Your task to perform on an android device: Empty the shopping cart on newegg.com. Add "usb-c to usb-a" to the cart on newegg.com Image 0: 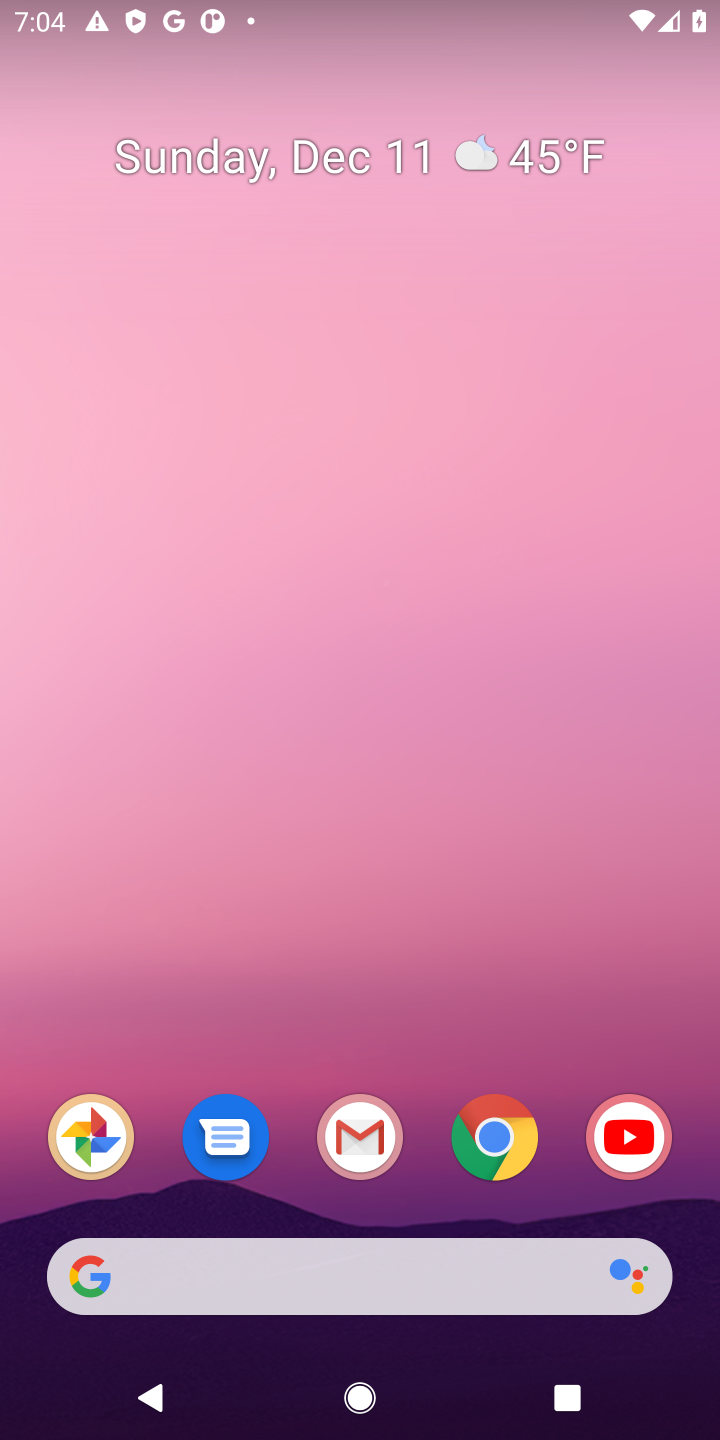
Step 0: click (503, 1128)
Your task to perform on an android device: Empty the shopping cart on newegg.com. Add "usb-c to usb-a" to the cart on newegg.com Image 1: 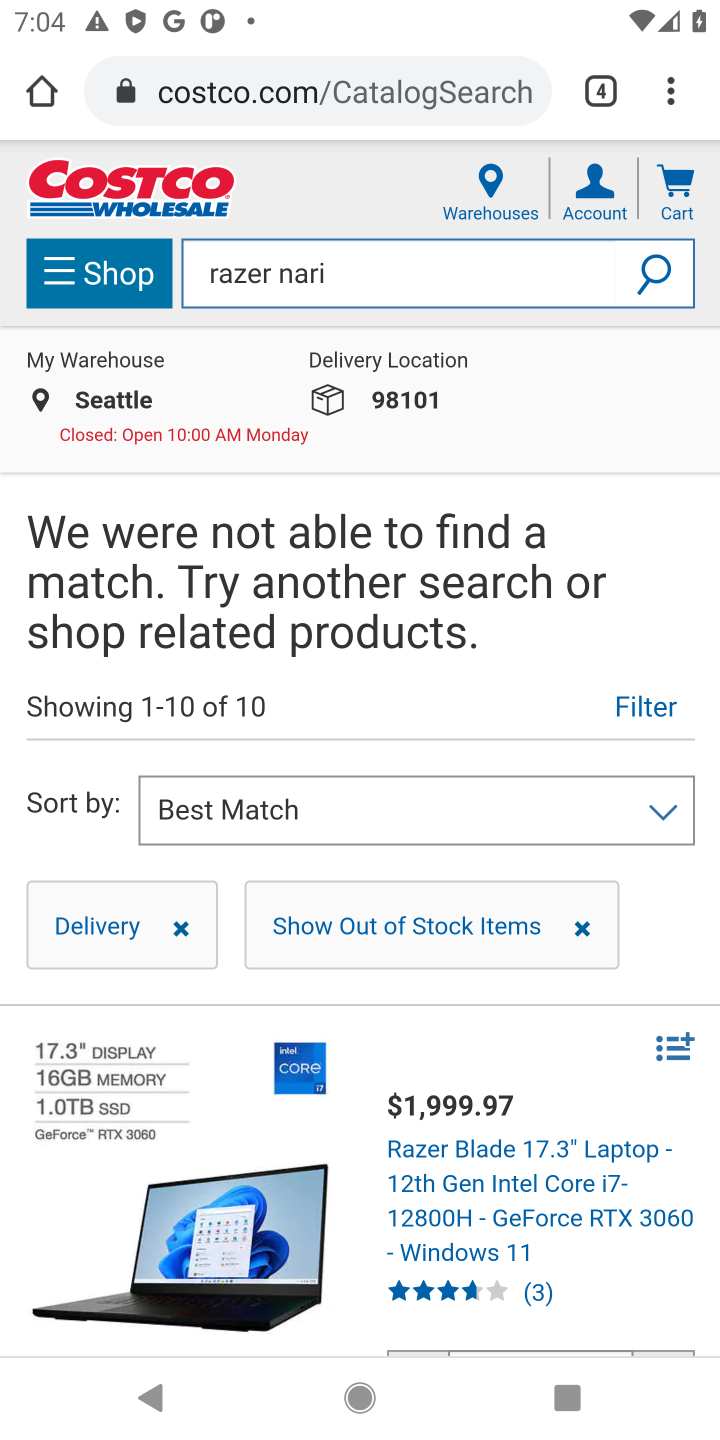
Step 1: click (213, 67)
Your task to perform on an android device: Empty the shopping cart on newegg.com. Add "usb-c to usb-a" to the cart on newegg.com Image 2: 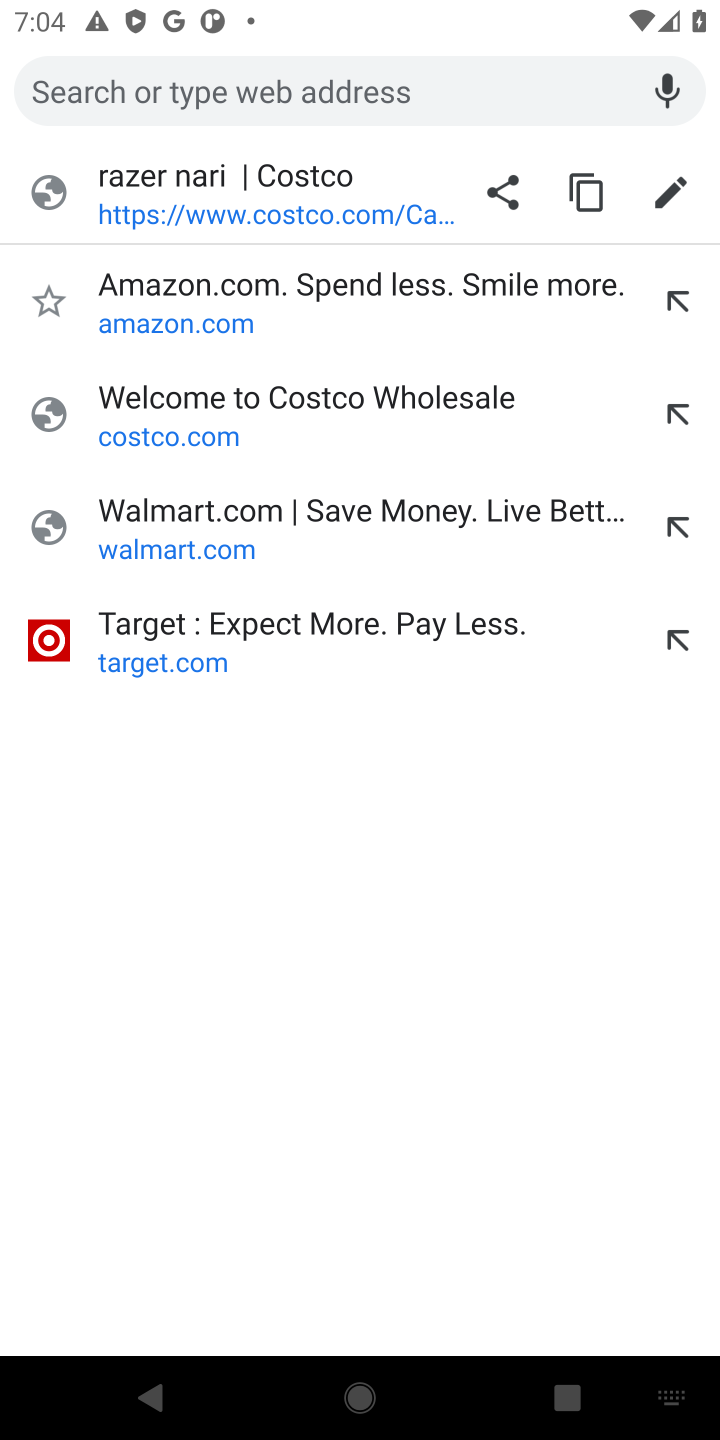
Step 2: type "newegg"
Your task to perform on an android device: Empty the shopping cart on newegg.com. Add "usb-c to usb-a" to the cart on newegg.com Image 3: 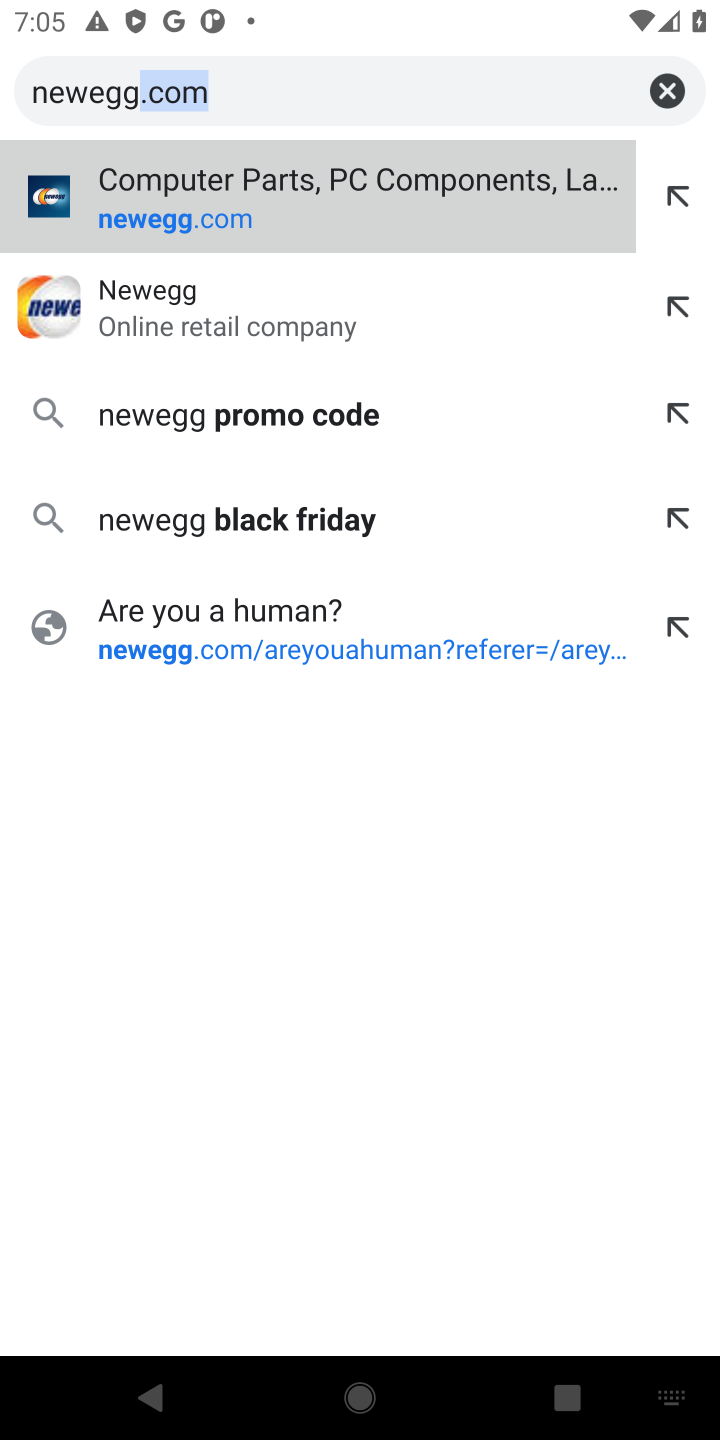
Step 3: click (211, 188)
Your task to perform on an android device: Empty the shopping cart on newegg.com. Add "usb-c to usb-a" to the cart on newegg.com Image 4: 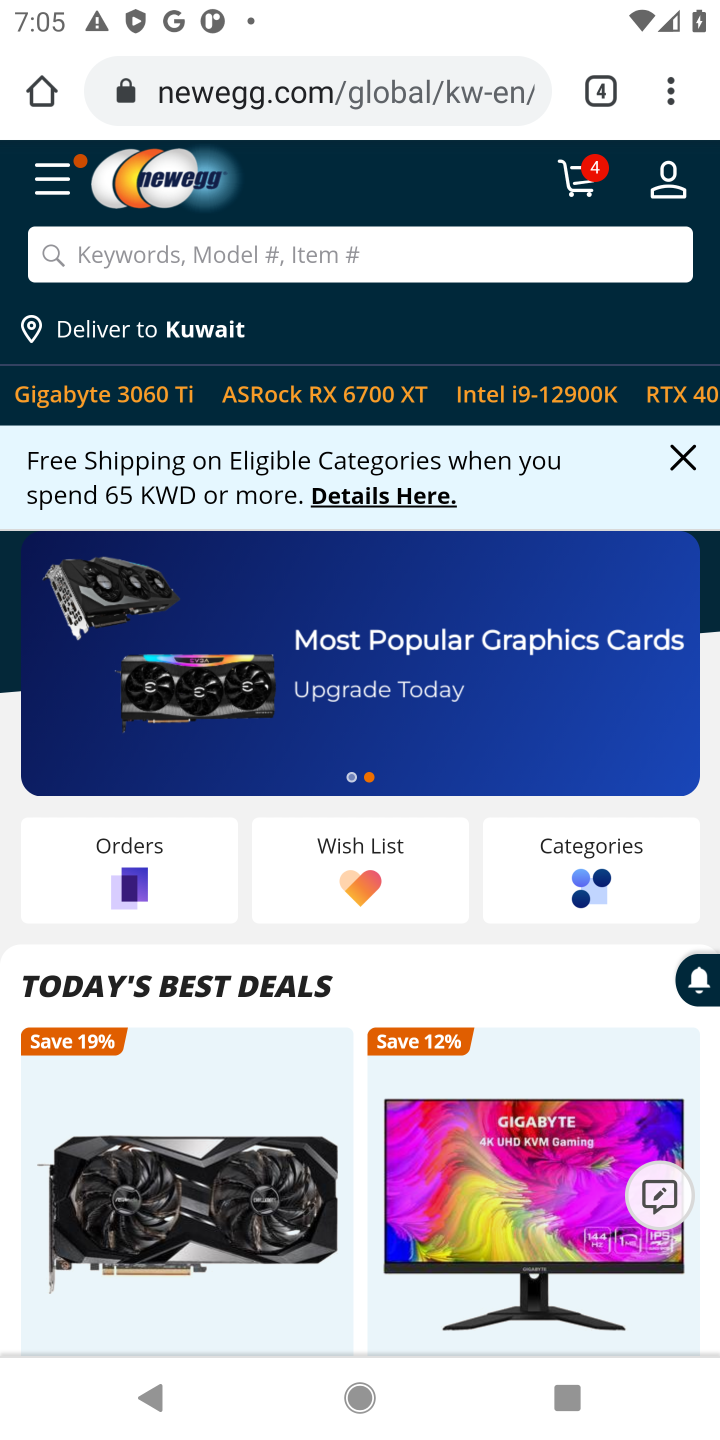
Step 4: click (594, 192)
Your task to perform on an android device: Empty the shopping cart on newegg.com. Add "usb-c to usb-a" to the cart on newegg.com Image 5: 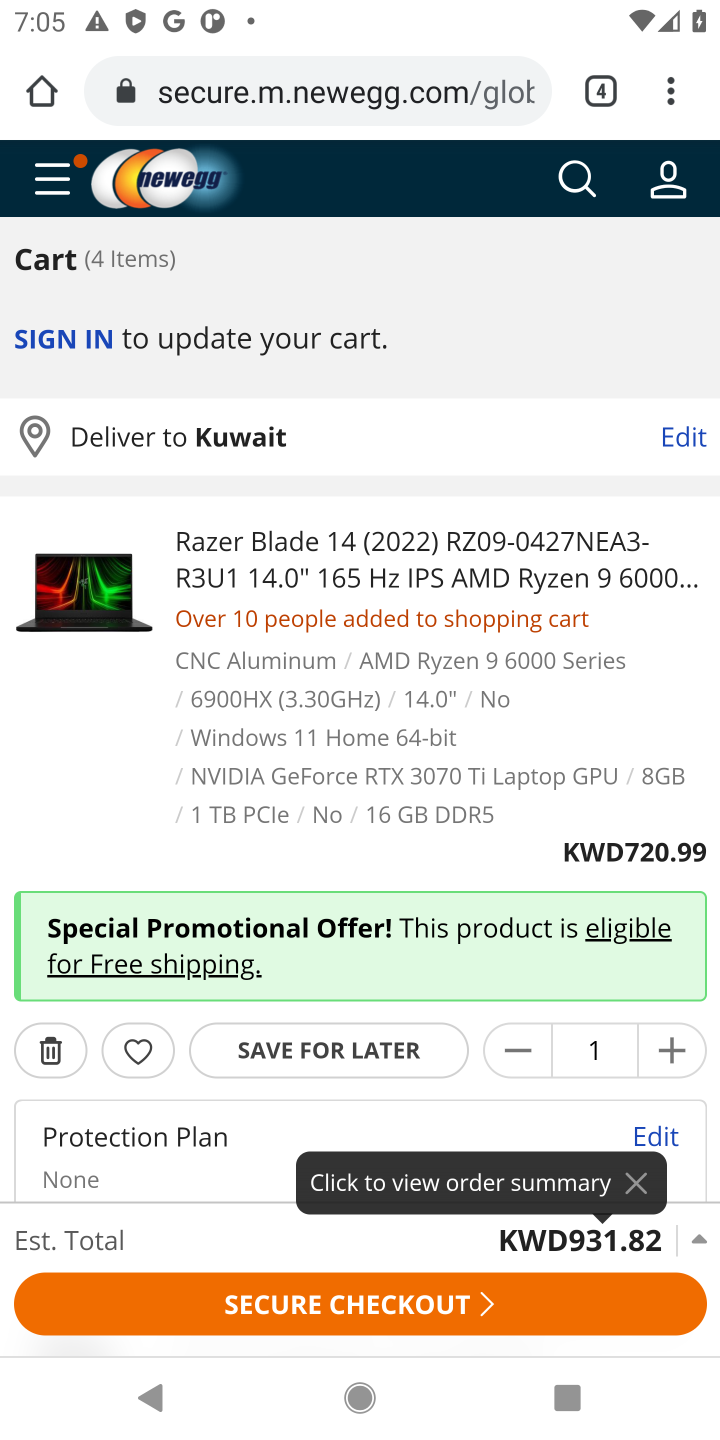
Step 5: click (52, 1060)
Your task to perform on an android device: Empty the shopping cart on newegg.com. Add "usb-c to usb-a" to the cart on newegg.com Image 6: 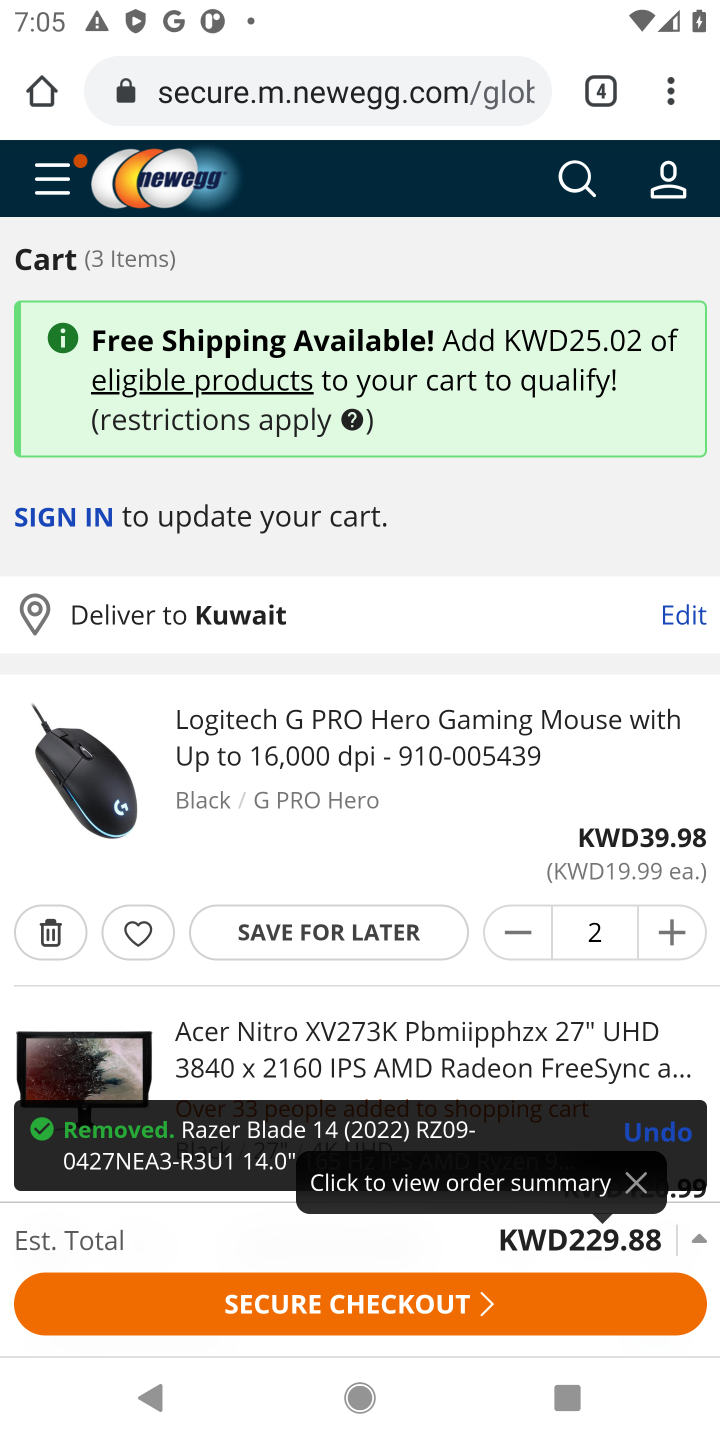
Step 6: click (41, 923)
Your task to perform on an android device: Empty the shopping cart on newegg.com. Add "usb-c to usb-a" to the cart on newegg.com Image 7: 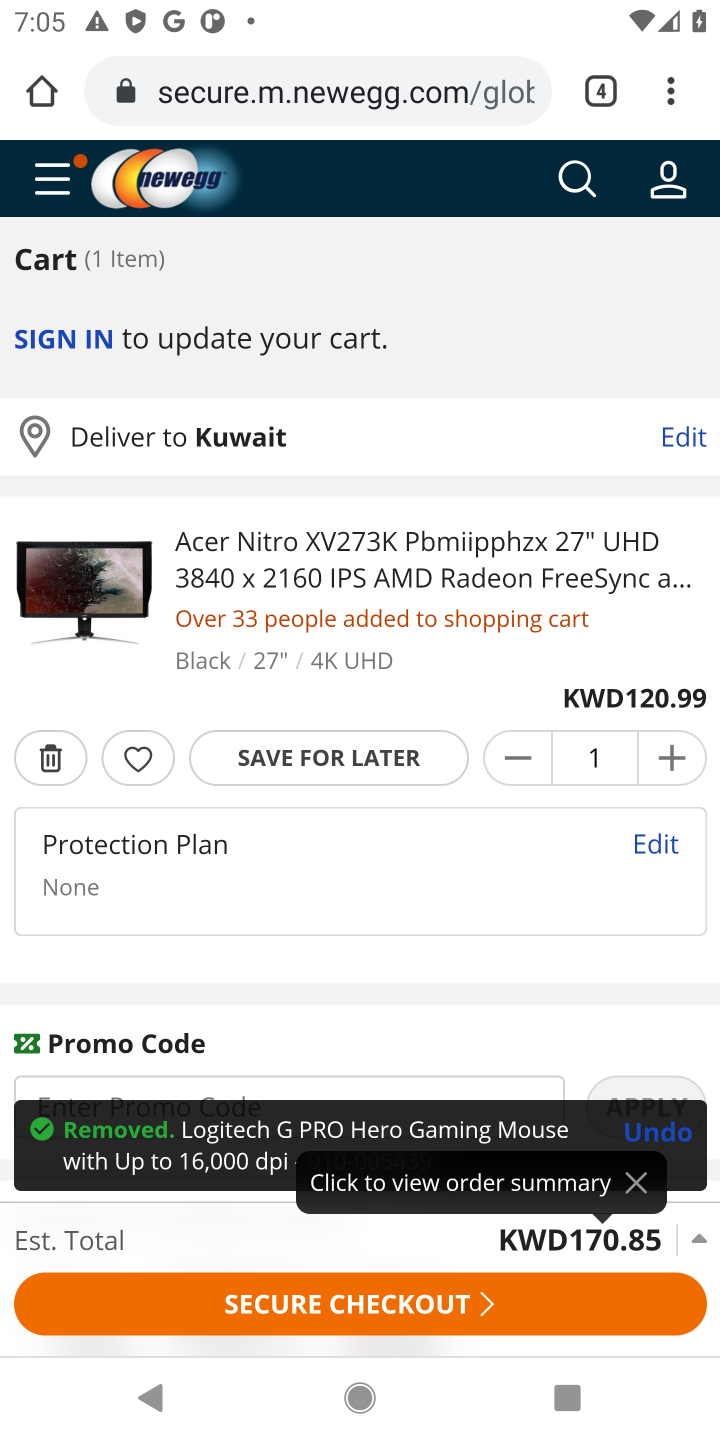
Step 7: click (45, 764)
Your task to perform on an android device: Empty the shopping cart on newegg.com. Add "usb-c to usb-a" to the cart on newegg.com Image 8: 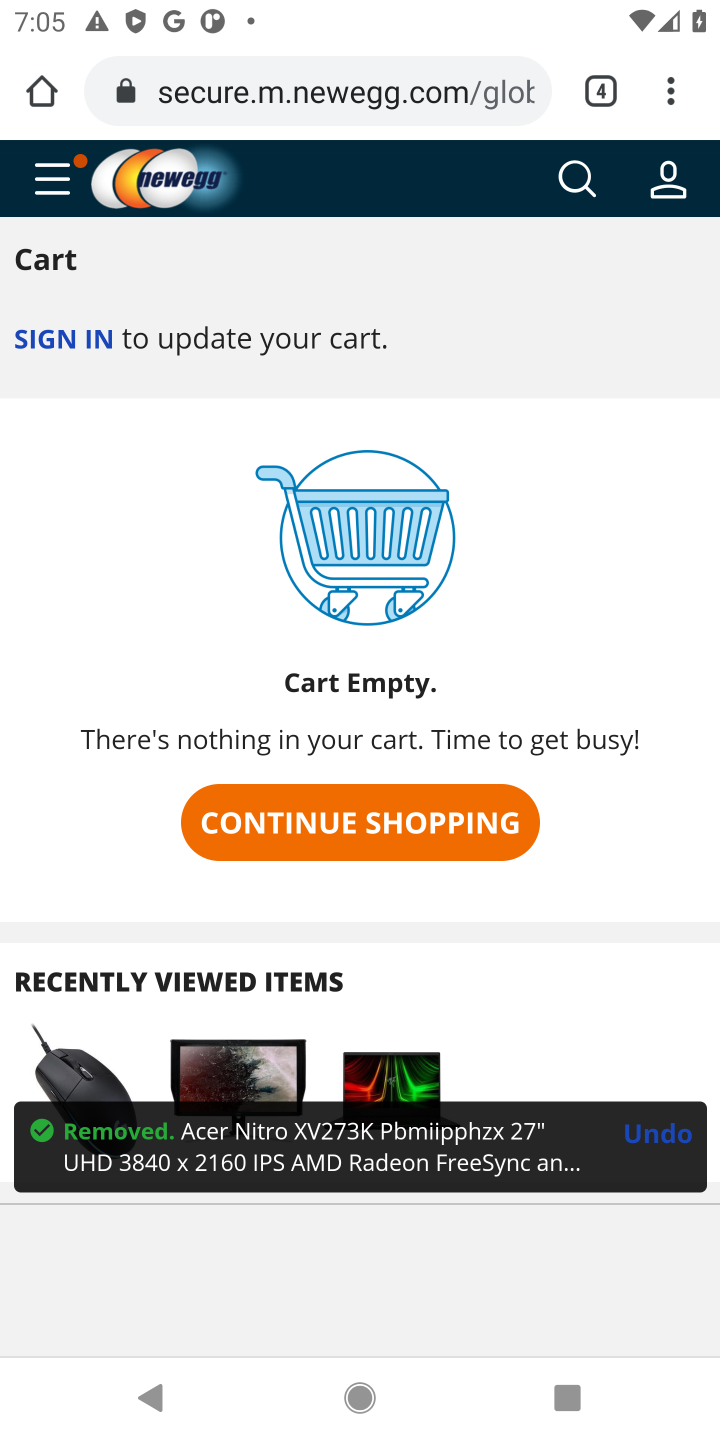
Step 8: click (560, 178)
Your task to perform on an android device: Empty the shopping cart on newegg.com. Add "usb-c to usb-a" to the cart on newegg.com Image 9: 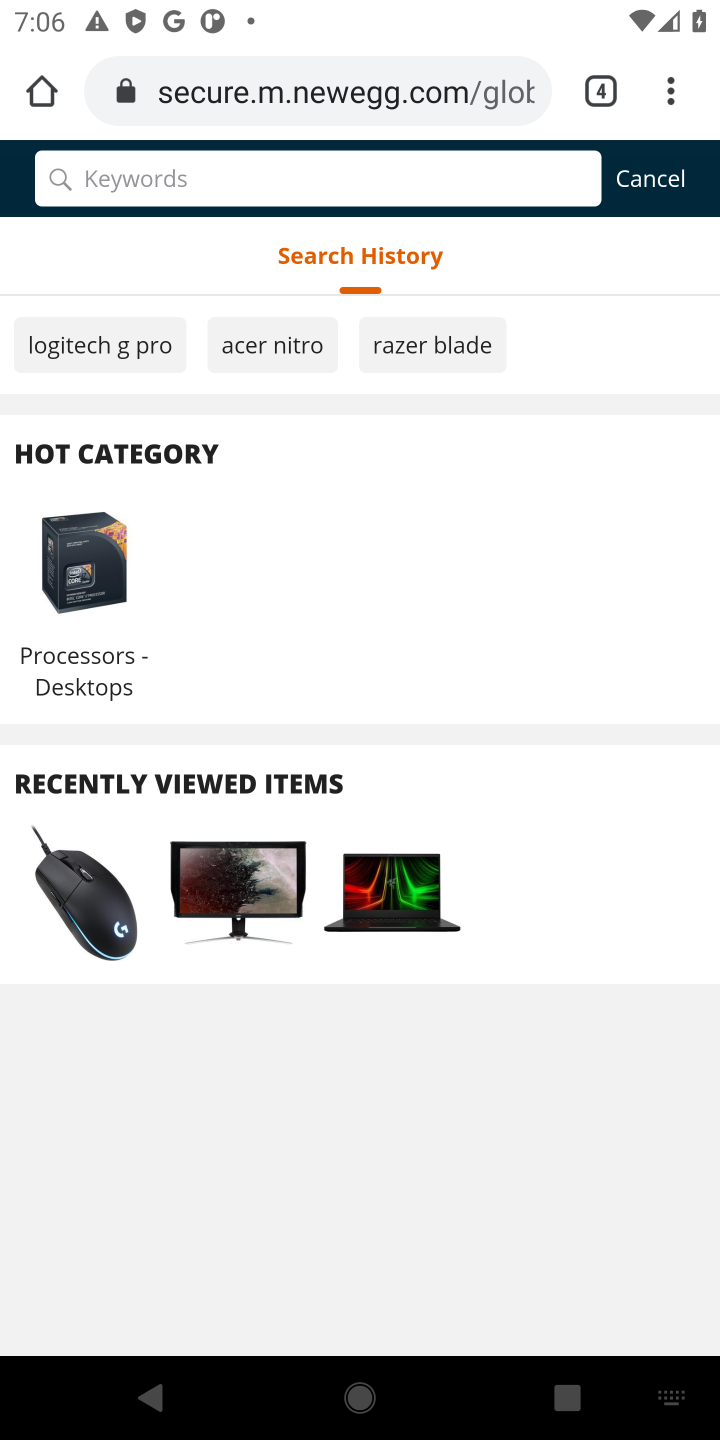
Step 9: type "usb-c to usb-a"
Your task to perform on an android device: Empty the shopping cart on newegg.com. Add "usb-c to usb-a" to the cart on newegg.com Image 10: 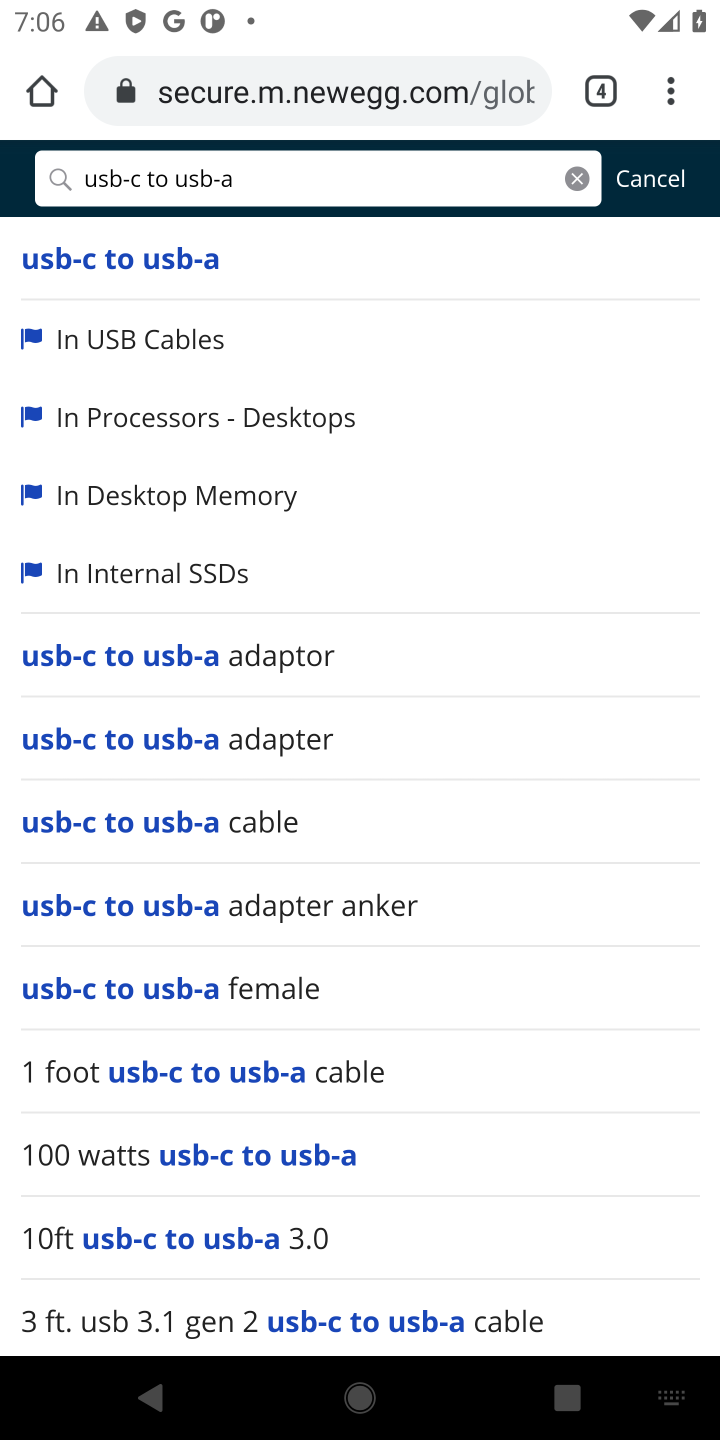
Step 10: click (122, 258)
Your task to perform on an android device: Empty the shopping cart on newegg.com. Add "usb-c to usb-a" to the cart on newegg.com Image 11: 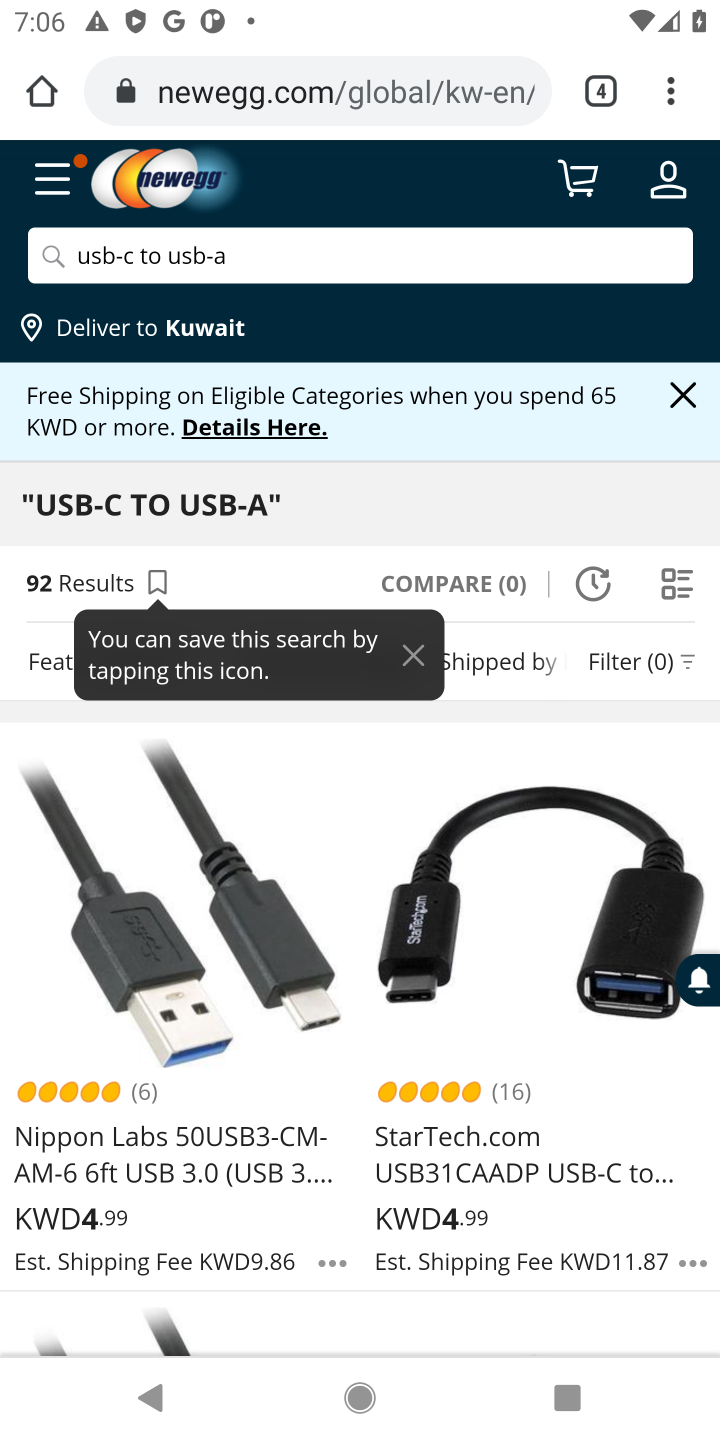
Step 11: click (539, 1152)
Your task to perform on an android device: Empty the shopping cart on newegg.com. Add "usb-c to usb-a" to the cart on newegg.com Image 12: 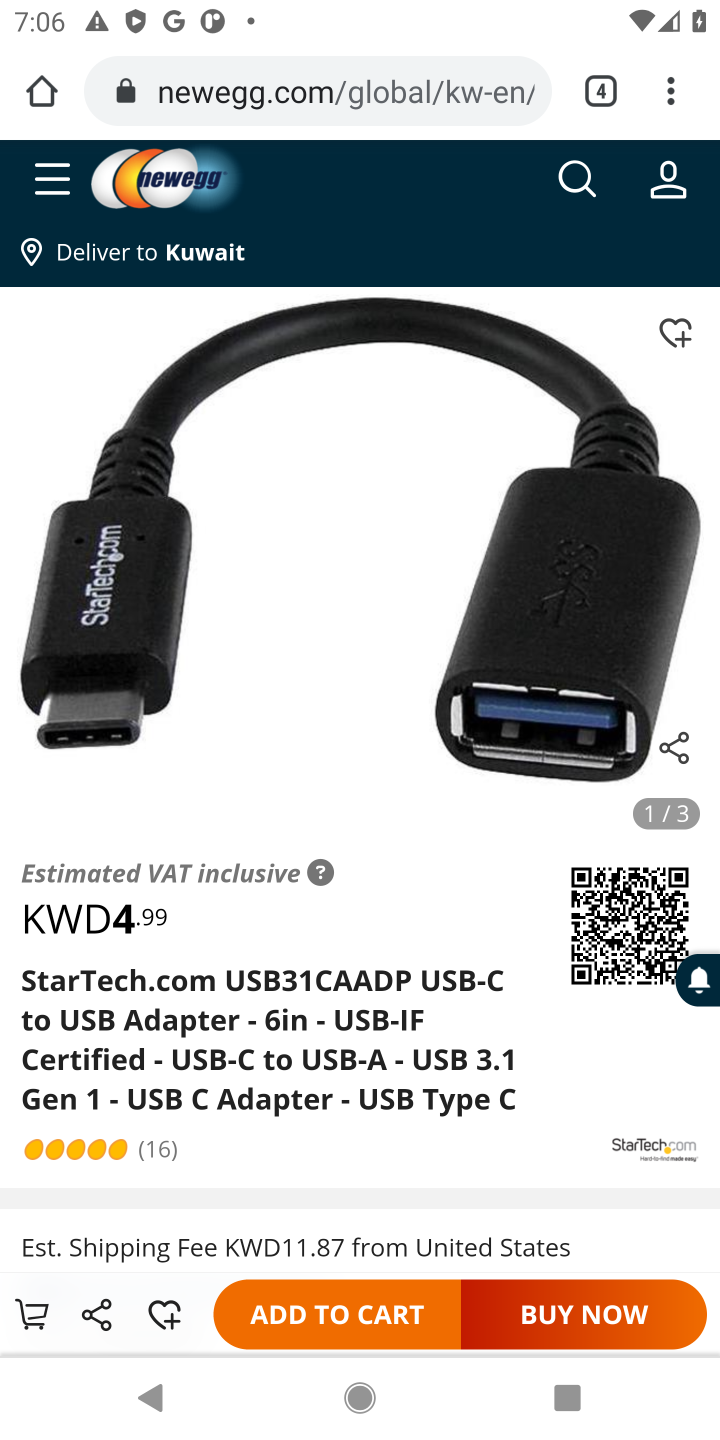
Step 12: click (376, 1320)
Your task to perform on an android device: Empty the shopping cart on newegg.com. Add "usb-c to usb-a" to the cart on newegg.com Image 13: 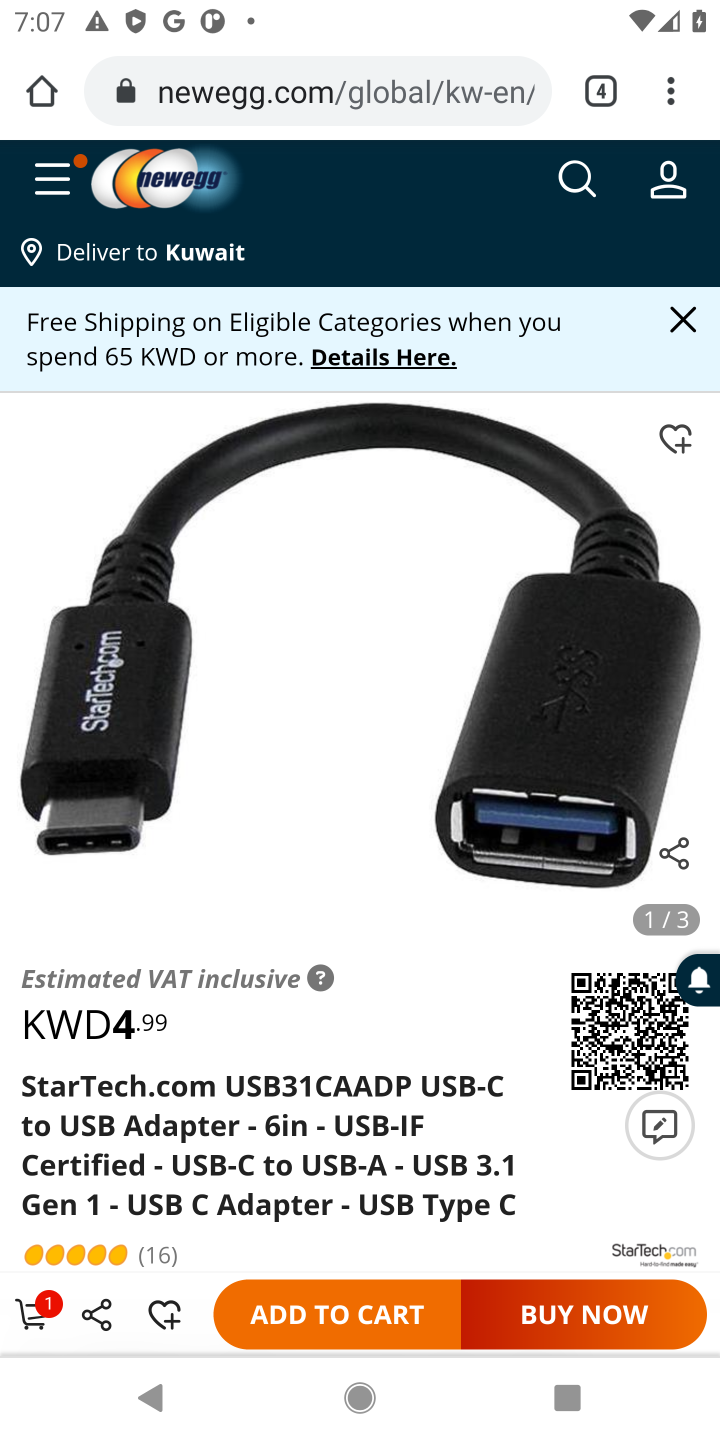
Step 13: task complete